Your task to perform on an android device: turn off improve location accuracy Image 0: 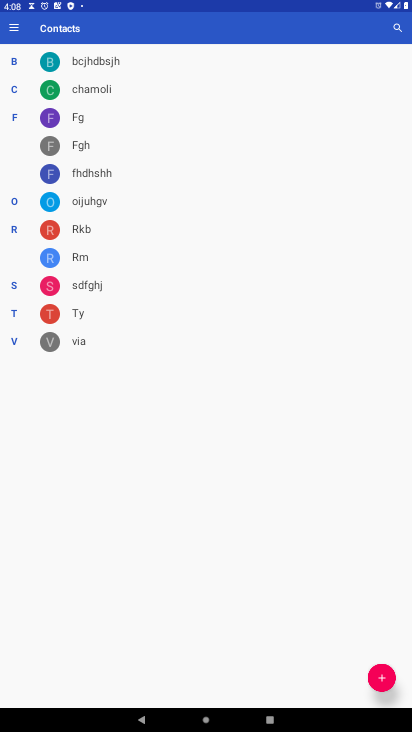
Step 0: press home button
Your task to perform on an android device: turn off improve location accuracy Image 1: 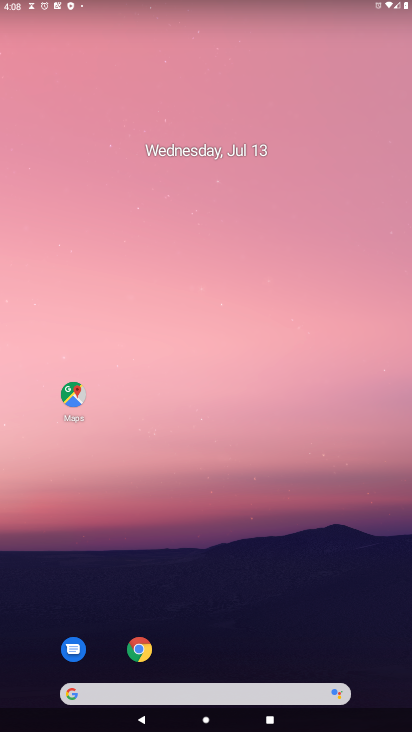
Step 1: drag from (227, 712) to (239, 75)
Your task to perform on an android device: turn off improve location accuracy Image 2: 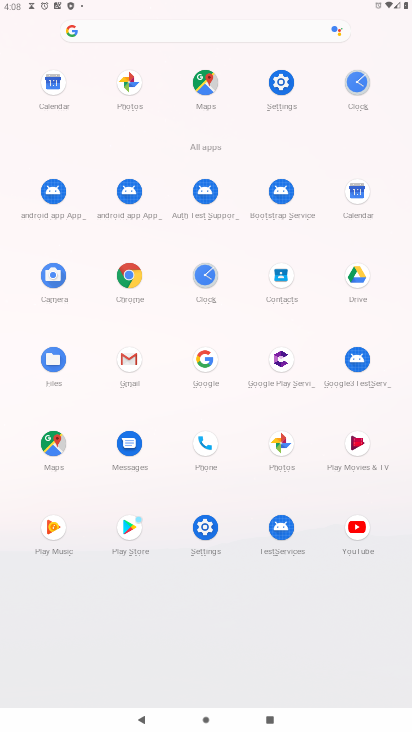
Step 2: click (277, 85)
Your task to perform on an android device: turn off improve location accuracy Image 3: 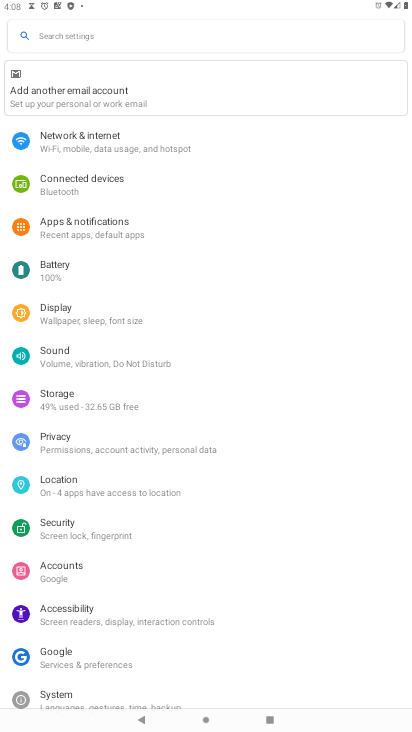
Step 3: click (66, 483)
Your task to perform on an android device: turn off improve location accuracy Image 4: 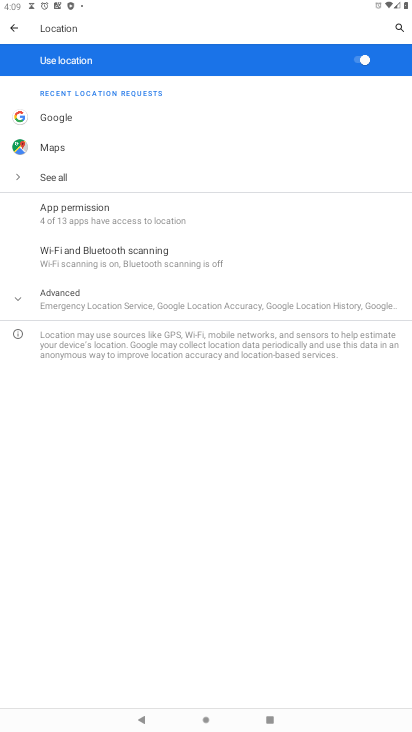
Step 4: click (80, 300)
Your task to perform on an android device: turn off improve location accuracy Image 5: 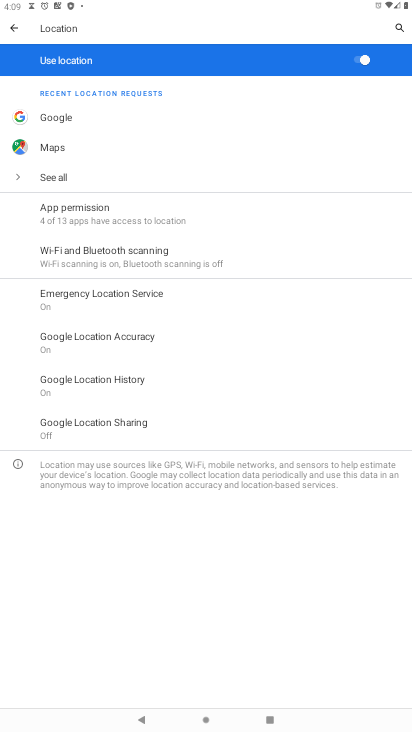
Step 5: click (135, 339)
Your task to perform on an android device: turn off improve location accuracy Image 6: 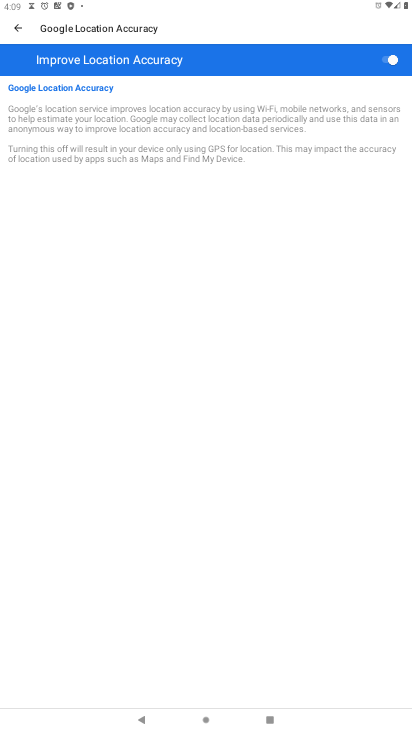
Step 6: click (384, 59)
Your task to perform on an android device: turn off improve location accuracy Image 7: 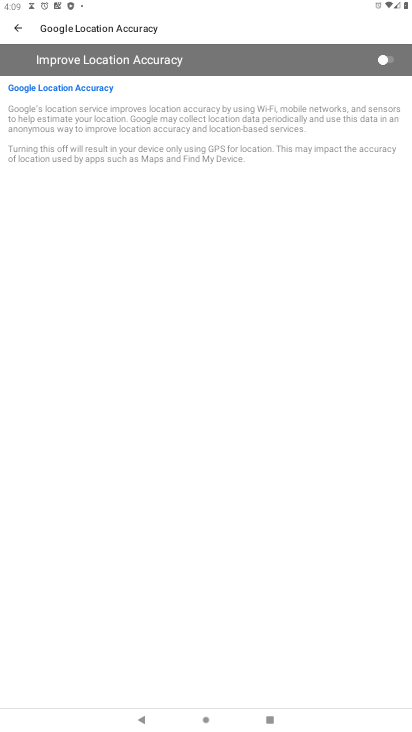
Step 7: task complete